Your task to perform on an android device: turn off sleep mode Image 0: 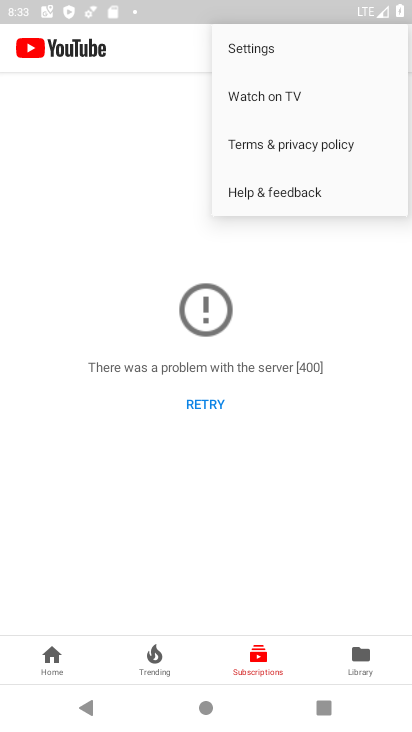
Step 0: press back button
Your task to perform on an android device: turn off sleep mode Image 1: 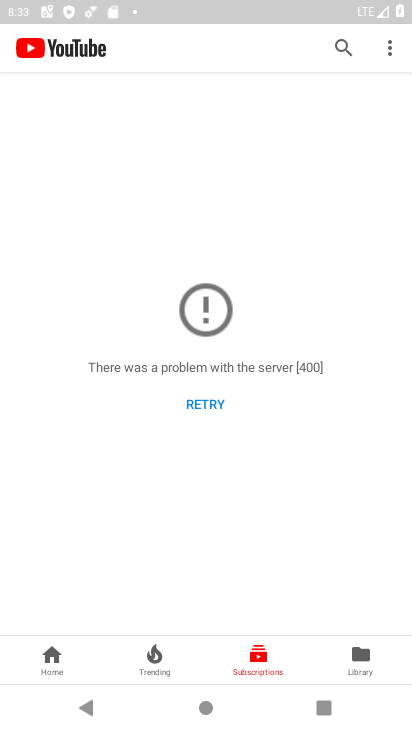
Step 1: press back button
Your task to perform on an android device: turn off sleep mode Image 2: 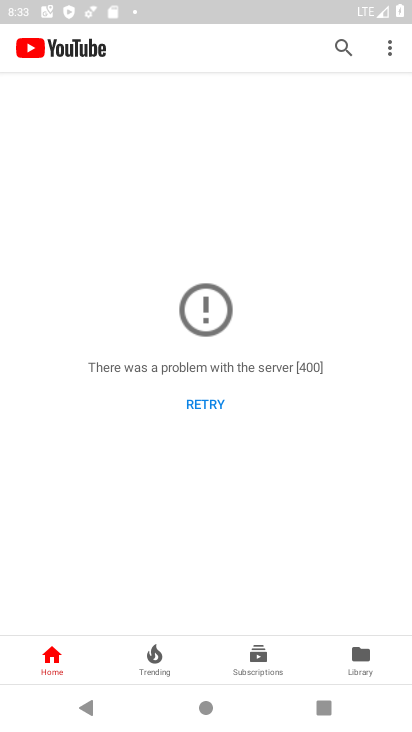
Step 2: press home button
Your task to perform on an android device: turn off sleep mode Image 3: 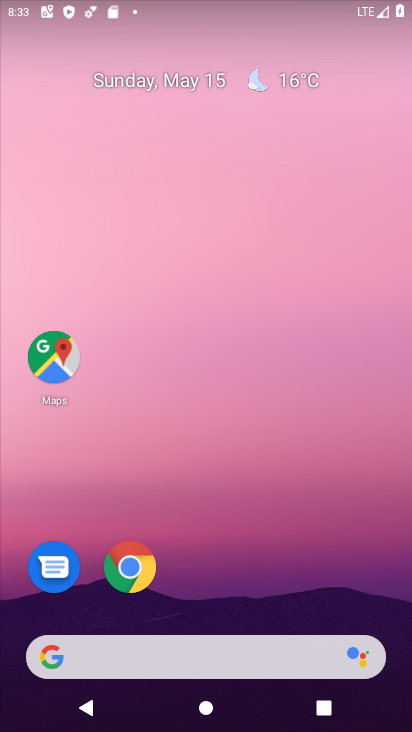
Step 3: drag from (175, 654) to (258, 85)
Your task to perform on an android device: turn off sleep mode Image 4: 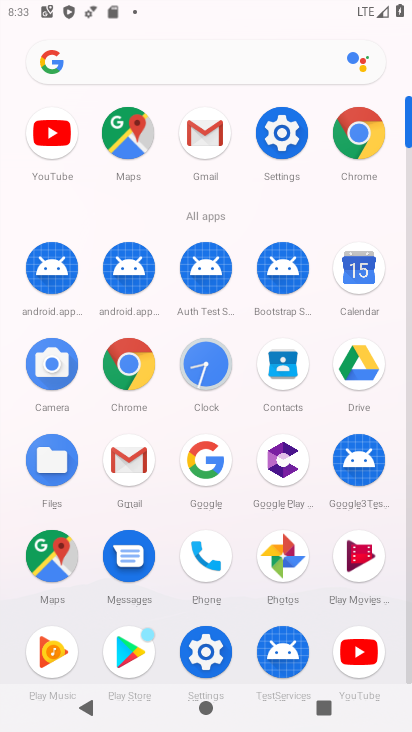
Step 4: click (291, 144)
Your task to perform on an android device: turn off sleep mode Image 5: 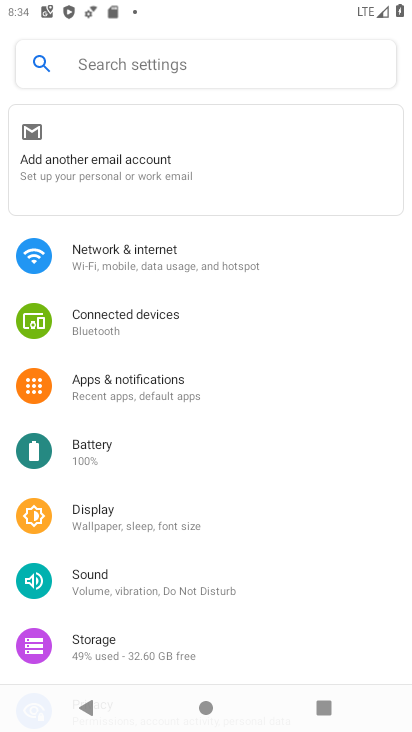
Step 5: click (129, 521)
Your task to perform on an android device: turn off sleep mode Image 6: 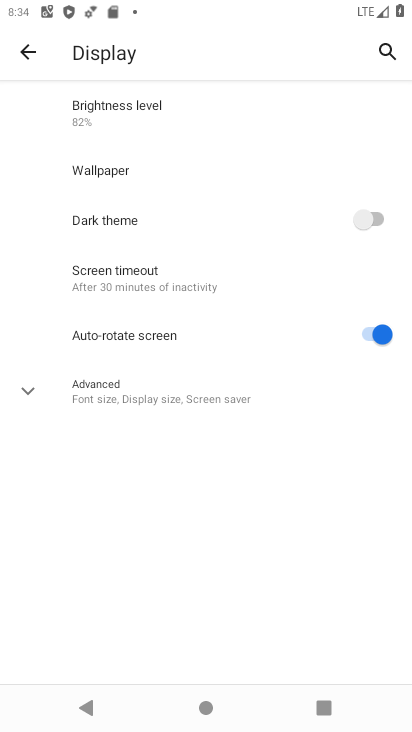
Step 6: click (179, 376)
Your task to perform on an android device: turn off sleep mode Image 7: 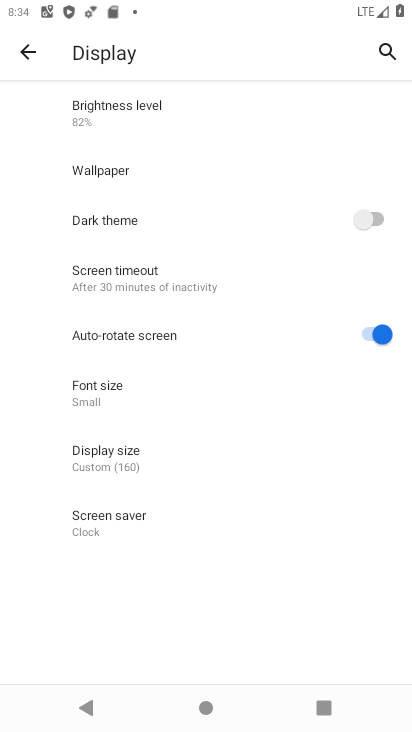
Step 7: task complete